Your task to perform on an android device: open a bookmark in the chrome app Image 0: 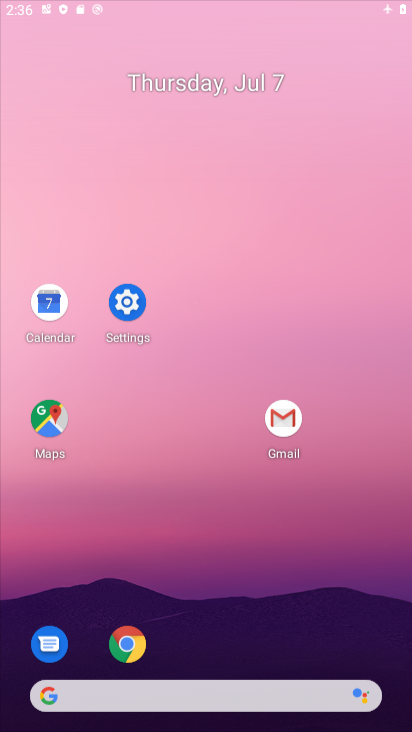
Step 0: press back button
Your task to perform on an android device: open a bookmark in the chrome app Image 1: 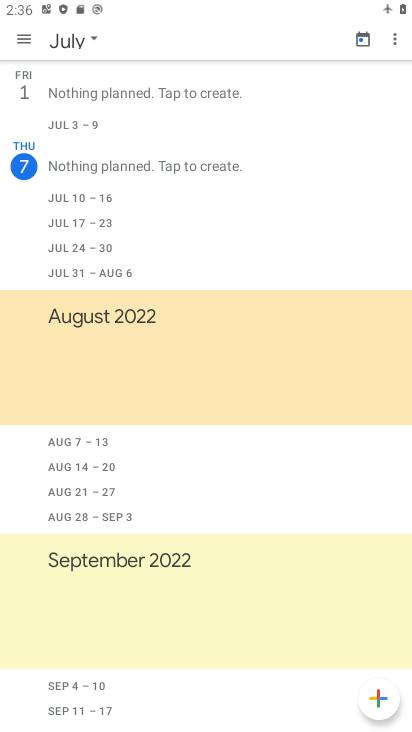
Step 1: press home button
Your task to perform on an android device: open a bookmark in the chrome app Image 2: 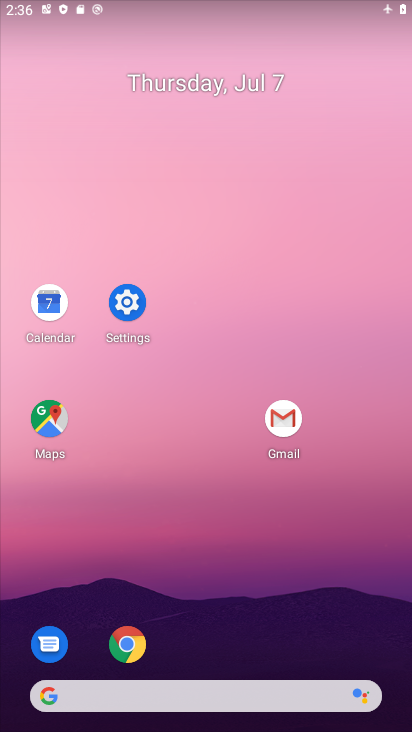
Step 2: click (58, 289)
Your task to perform on an android device: open a bookmark in the chrome app Image 3: 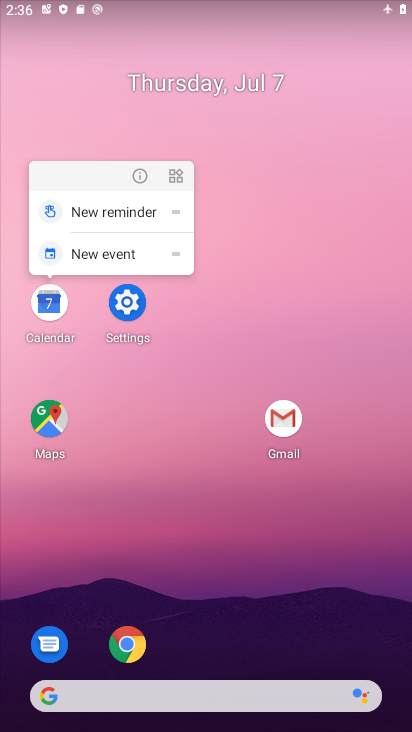
Step 3: click (130, 644)
Your task to perform on an android device: open a bookmark in the chrome app Image 4: 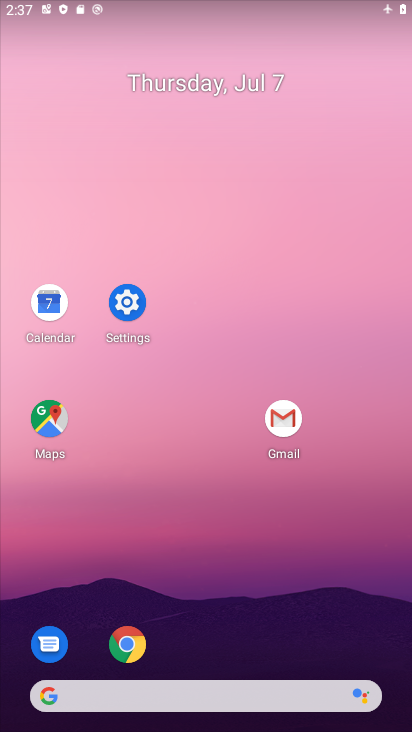
Step 4: click (127, 638)
Your task to perform on an android device: open a bookmark in the chrome app Image 5: 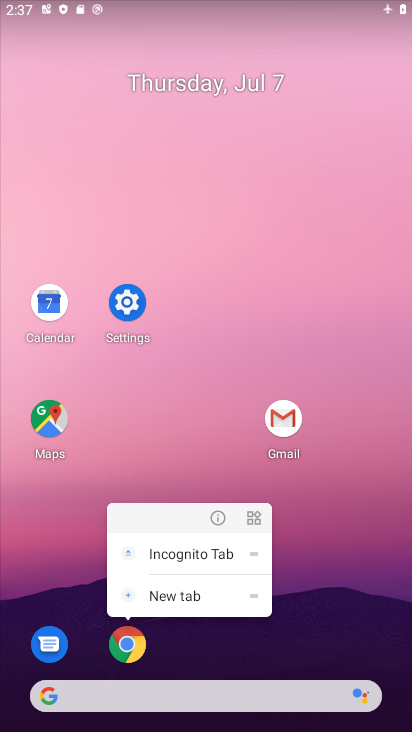
Step 5: click (127, 634)
Your task to perform on an android device: open a bookmark in the chrome app Image 6: 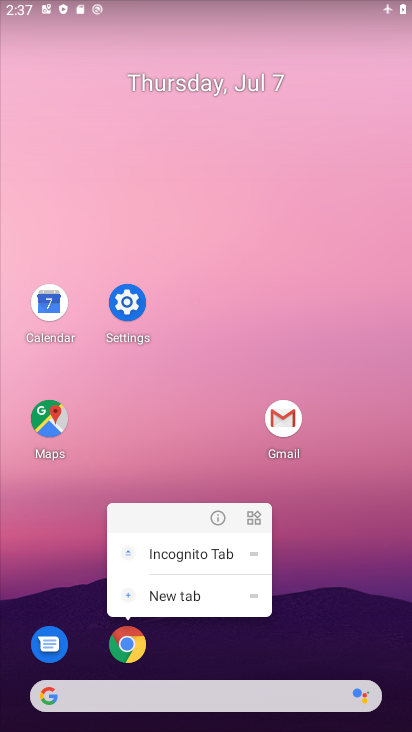
Step 6: click (127, 634)
Your task to perform on an android device: open a bookmark in the chrome app Image 7: 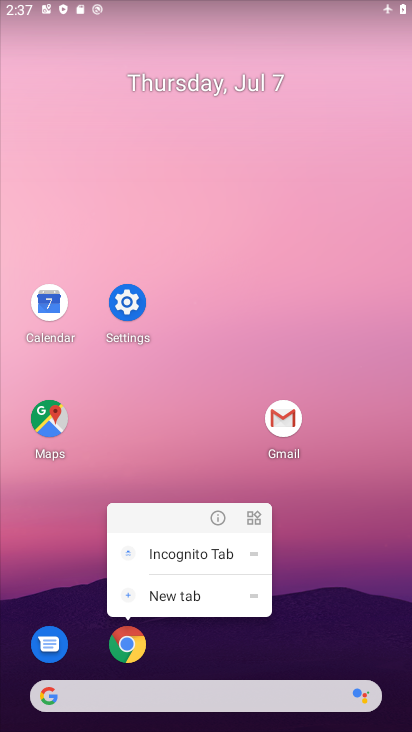
Step 7: click (123, 636)
Your task to perform on an android device: open a bookmark in the chrome app Image 8: 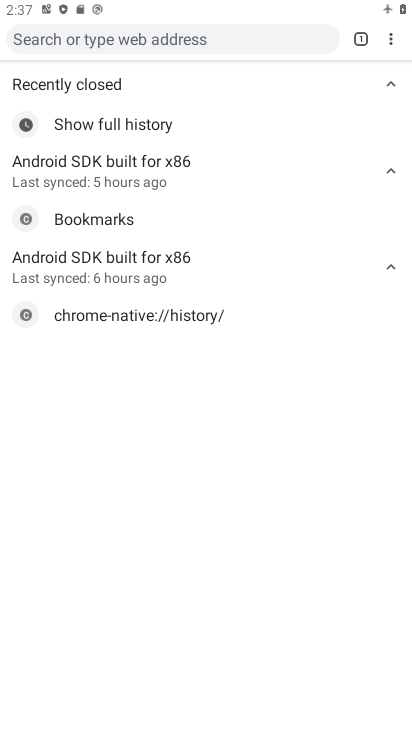
Step 8: click (390, 39)
Your task to perform on an android device: open a bookmark in the chrome app Image 9: 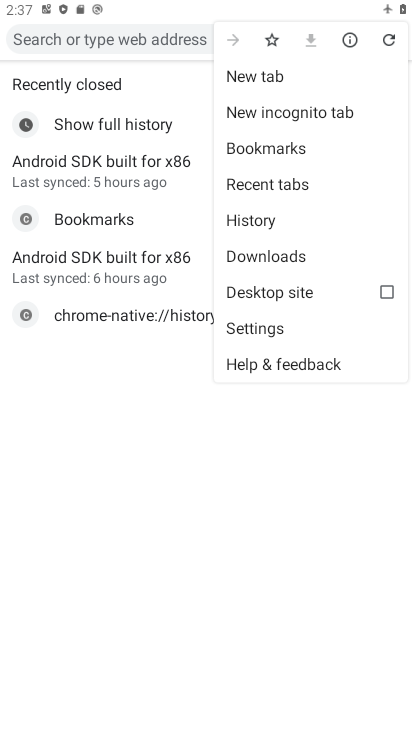
Step 9: click (263, 144)
Your task to perform on an android device: open a bookmark in the chrome app Image 10: 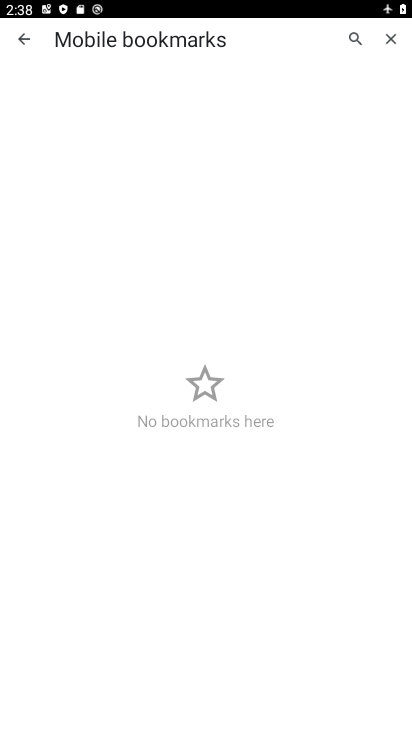
Step 10: task complete